Your task to perform on an android device: Go to Android settings Image 0: 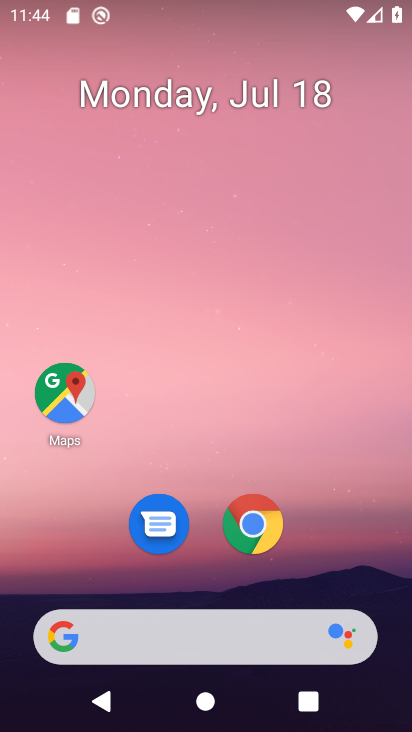
Step 0: drag from (226, 446) to (266, 36)
Your task to perform on an android device: Go to Android settings Image 1: 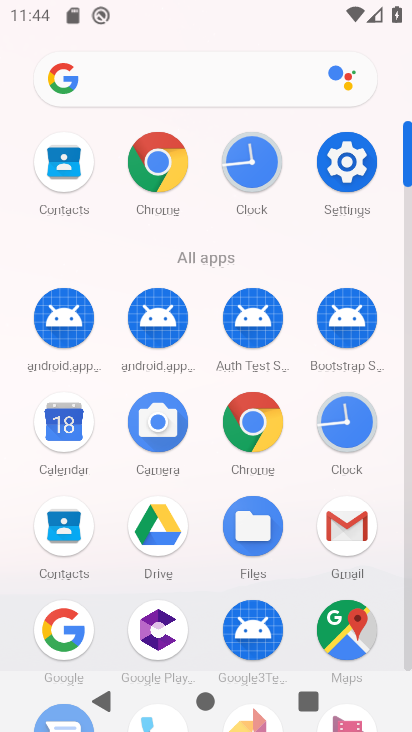
Step 1: click (343, 164)
Your task to perform on an android device: Go to Android settings Image 2: 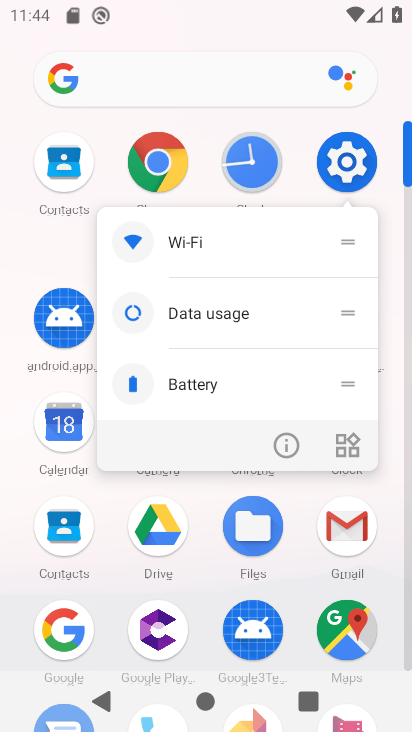
Step 2: click (355, 164)
Your task to perform on an android device: Go to Android settings Image 3: 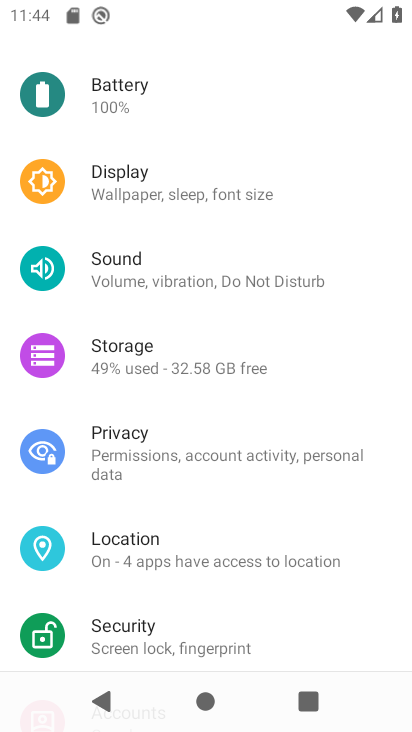
Step 3: drag from (222, 593) to (240, 51)
Your task to perform on an android device: Go to Android settings Image 4: 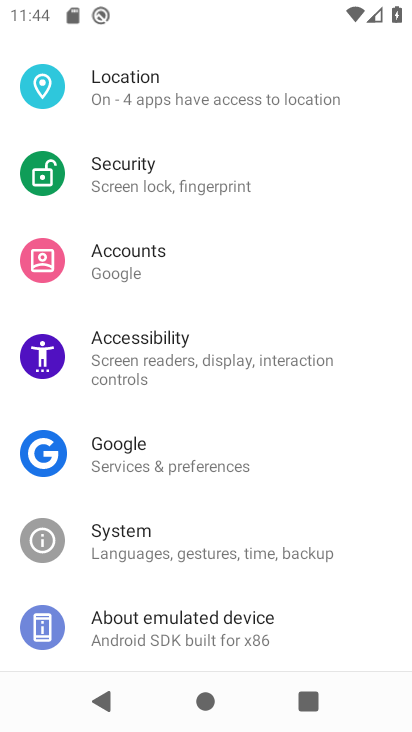
Step 4: click (184, 625)
Your task to perform on an android device: Go to Android settings Image 5: 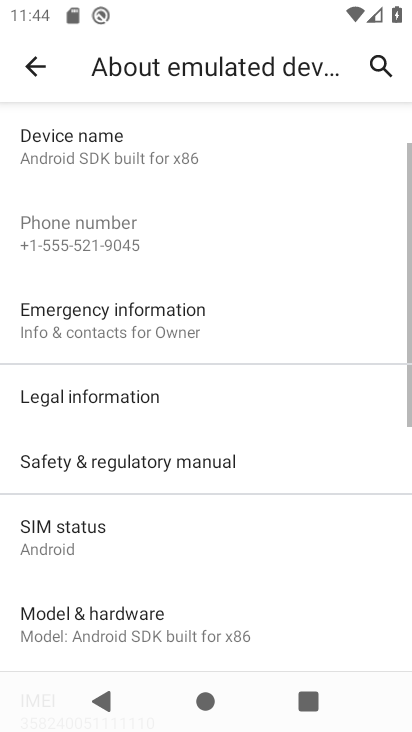
Step 5: task complete